Your task to perform on an android device: remove spam from my inbox in the gmail app Image 0: 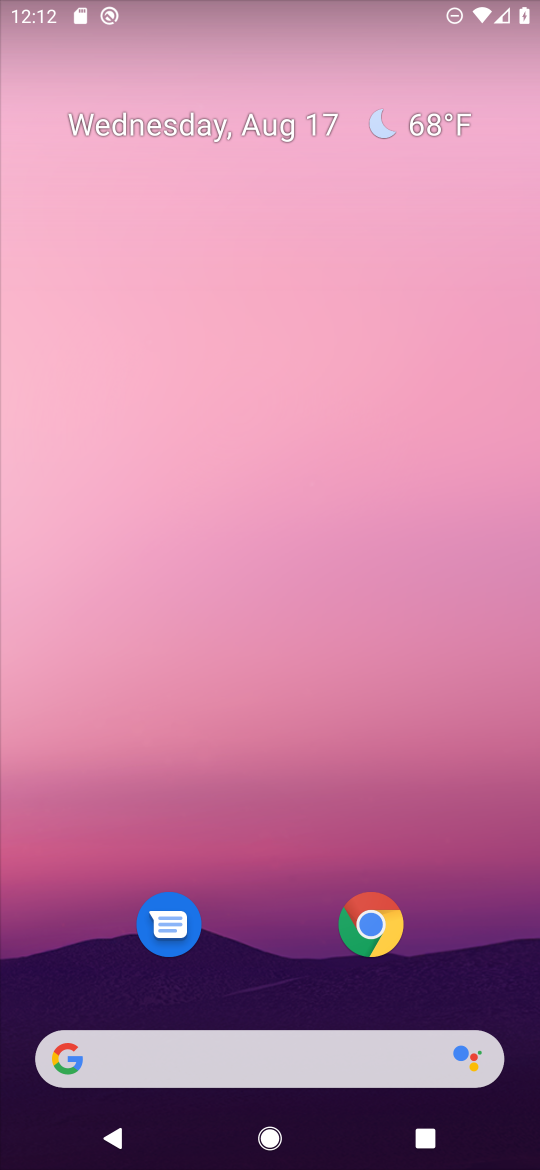
Step 0: drag from (242, 992) to (231, 149)
Your task to perform on an android device: remove spam from my inbox in the gmail app Image 1: 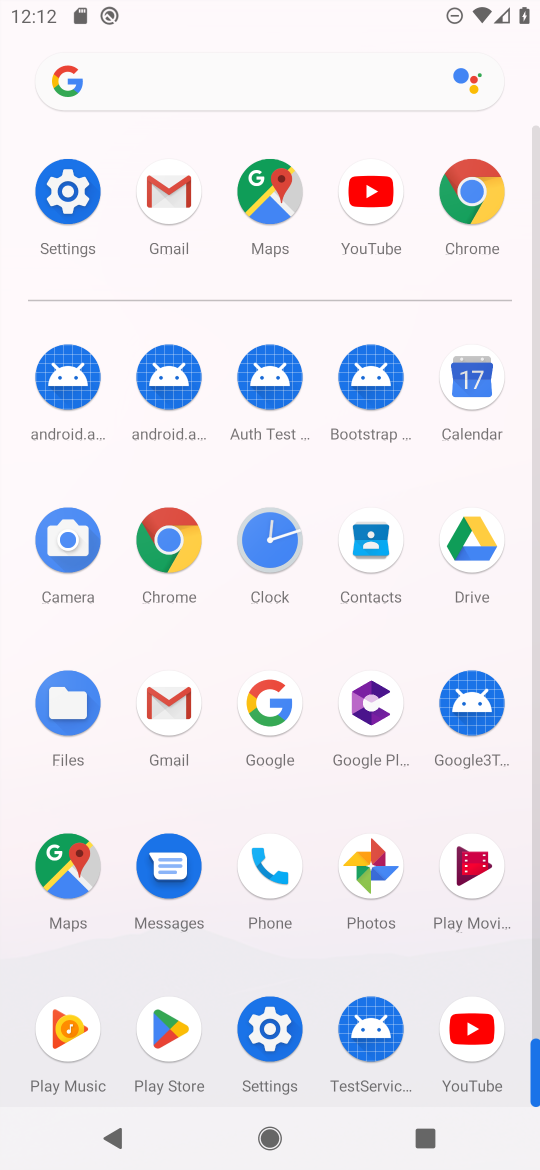
Step 1: click (168, 168)
Your task to perform on an android device: remove spam from my inbox in the gmail app Image 2: 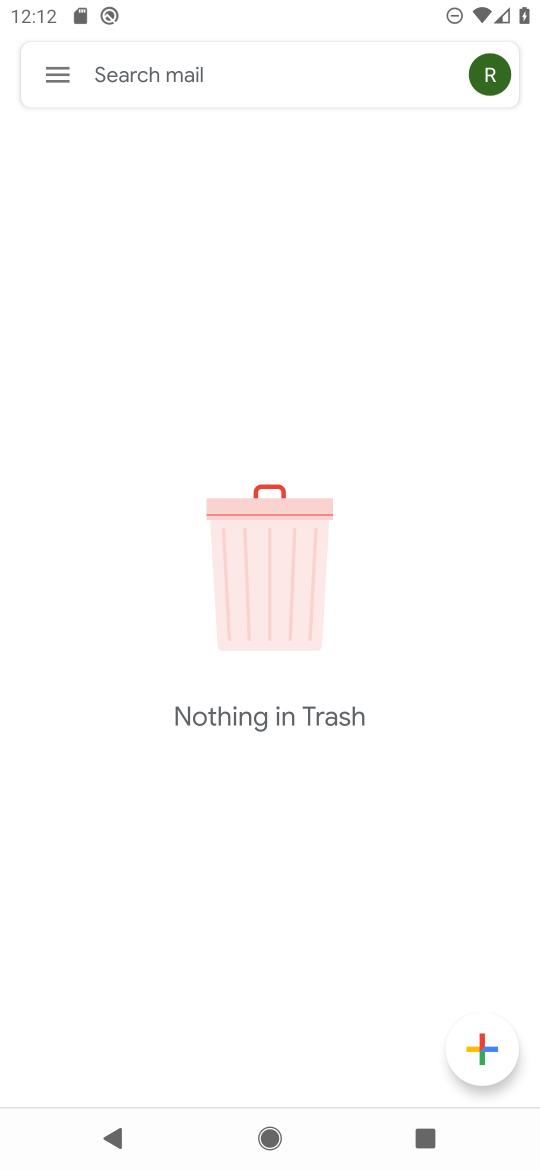
Step 2: click (53, 84)
Your task to perform on an android device: remove spam from my inbox in the gmail app Image 3: 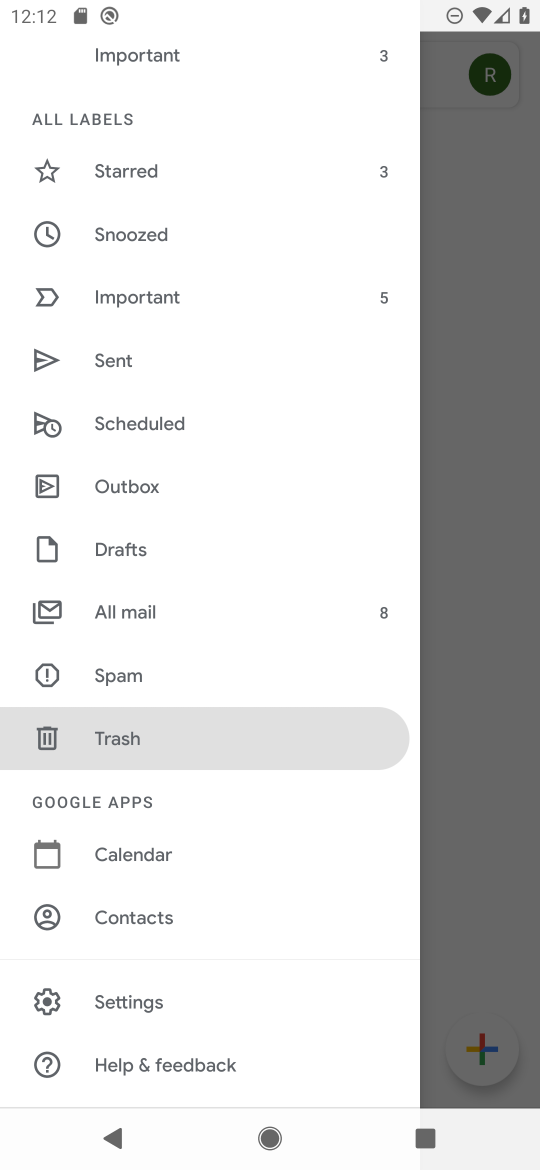
Step 3: click (184, 688)
Your task to perform on an android device: remove spam from my inbox in the gmail app Image 4: 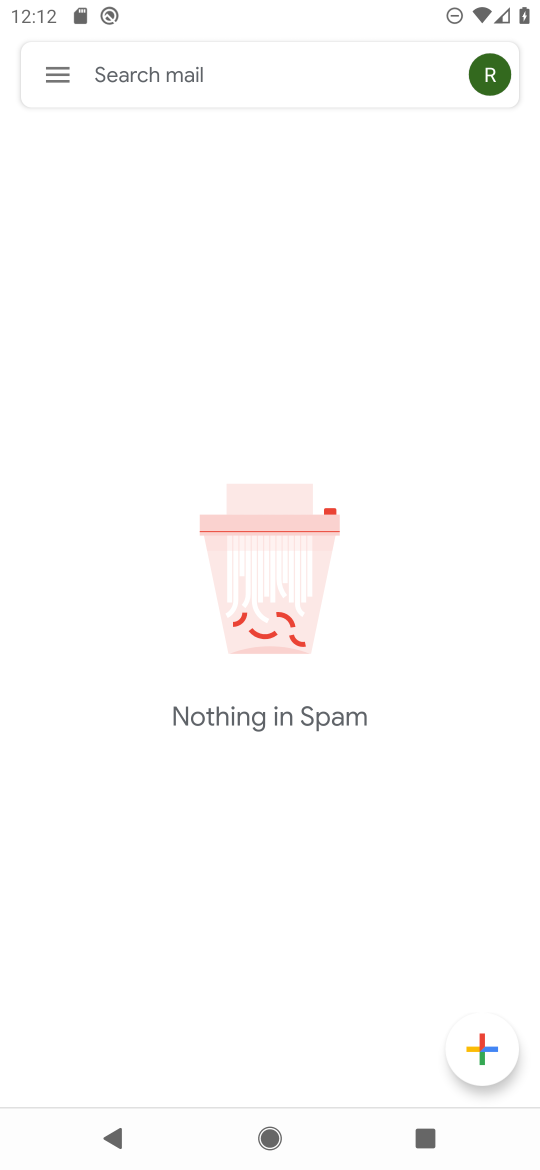
Step 4: task complete